Your task to perform on an android device: turn off notifications settings in the gmail app Image 0: 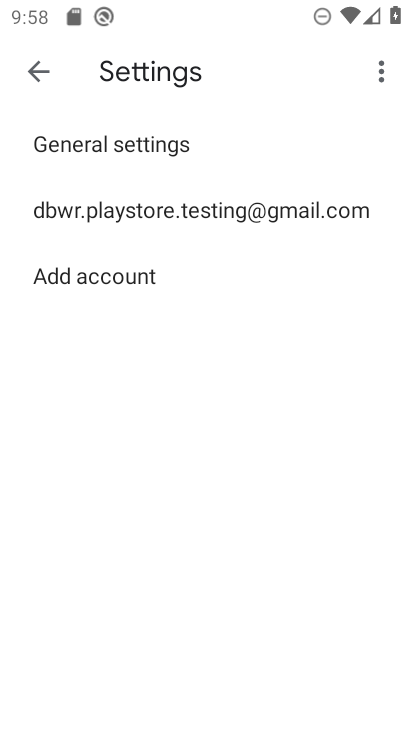
Step 0: click (145, 154)
Your task to perform on an android device: turn off notifications settings in the gmail app Image 1: 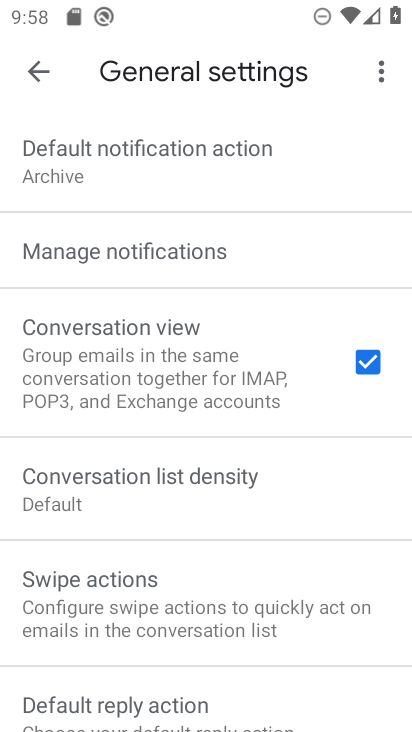
Step 1: click (150, 254)
Your task to perform on an android device: turn off notifications settings in the gmail app Image 2: 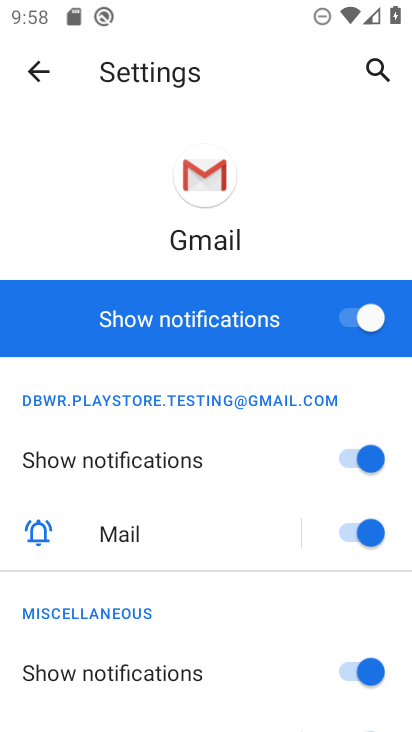
Step 2: click (362, 310)
Your task to perform on an android device: turn off notifications settings in the gmail app Image 3: 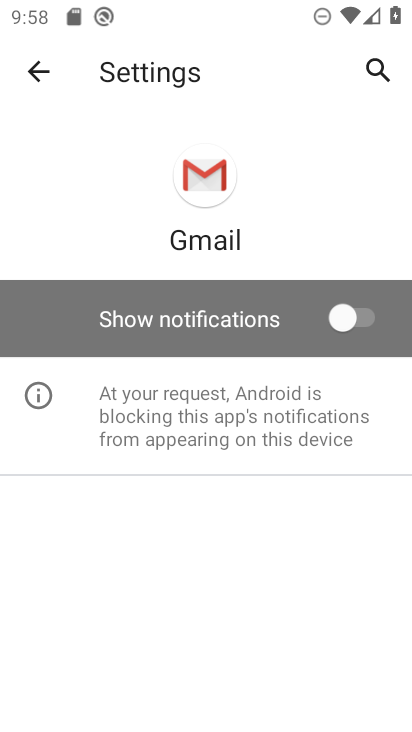
Step 3: task complete